Your task to perform on an android device: add a contact Image 0: 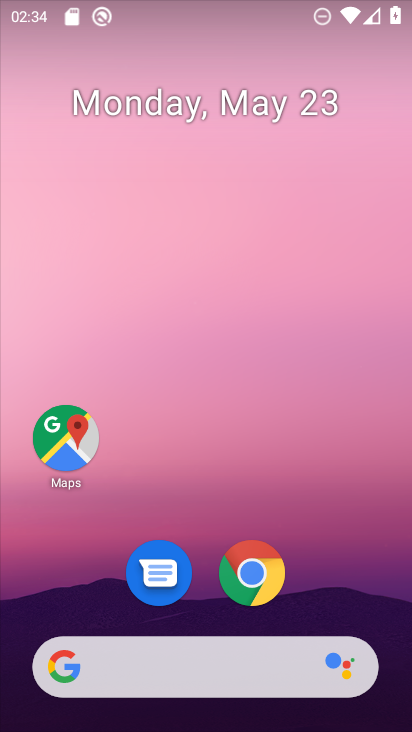
Step 0: drag from (351, 582) to (354, 91)
Your task to perform on an android device: add a contact Image 1: 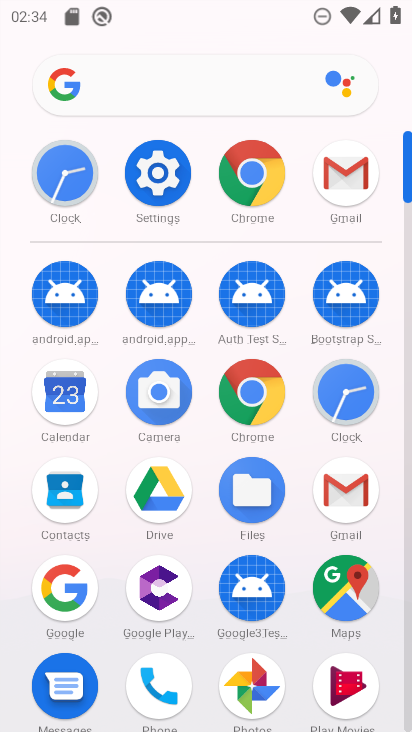
Step 1: drag from (218, 583) to (290, 219)
Your task to perform on an android device: add a contact Image 2: 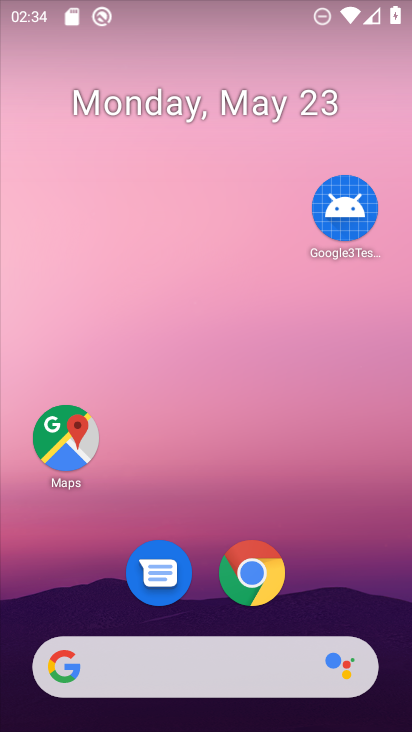
Step 2: drag from (319, 526) to (316, 56)
Your task to perform on an android device: add a contact Image 3: 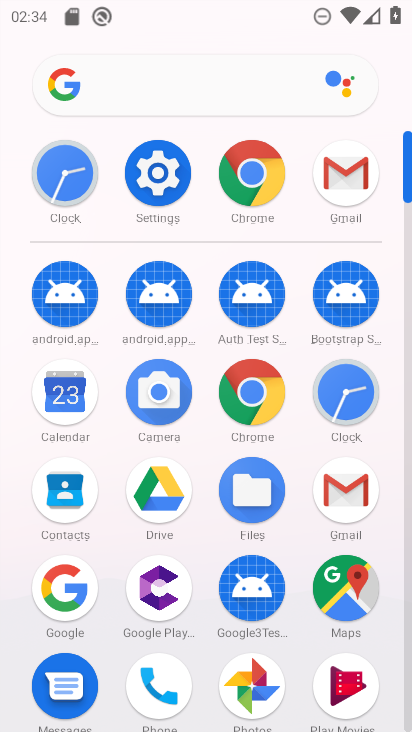
Step 3: click (64, 493)
Your task to perform on an android device: add a contact Image 4: 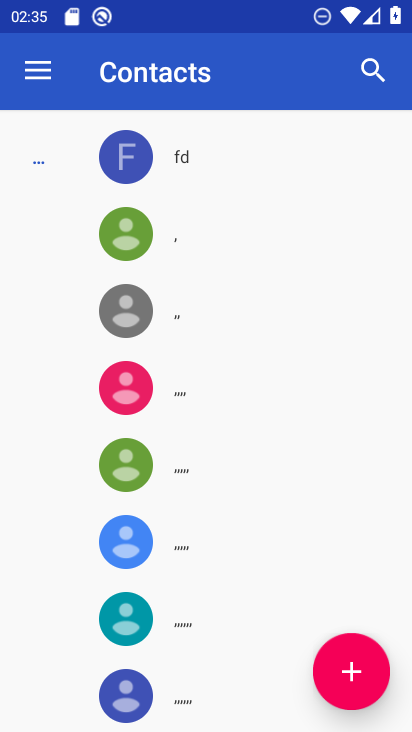
Step 4: click (361, 667)
Your task to perform on an android device: add a contact Image 5: 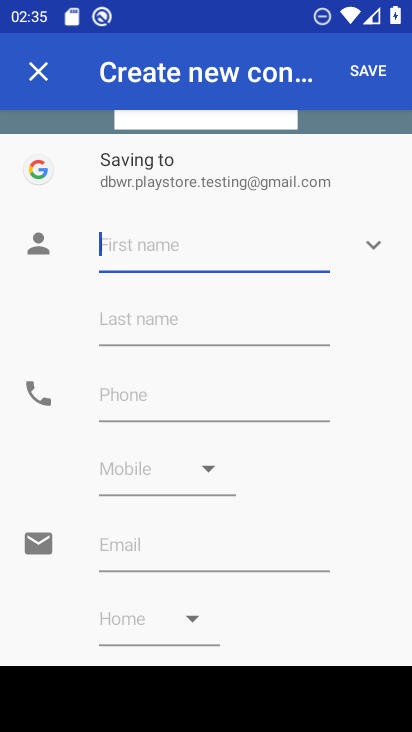
Step 5: type "hella"
Your task to perform on an android device: add a contact Image 6: 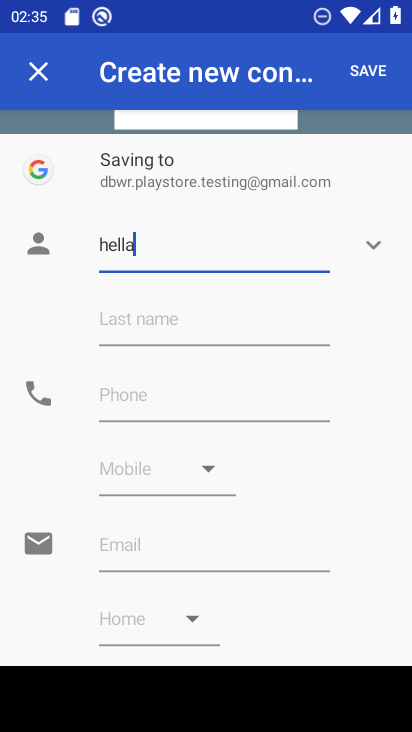
Step 6: click (377, 62)
Your task to perform on an android device: add a contact Image 7: 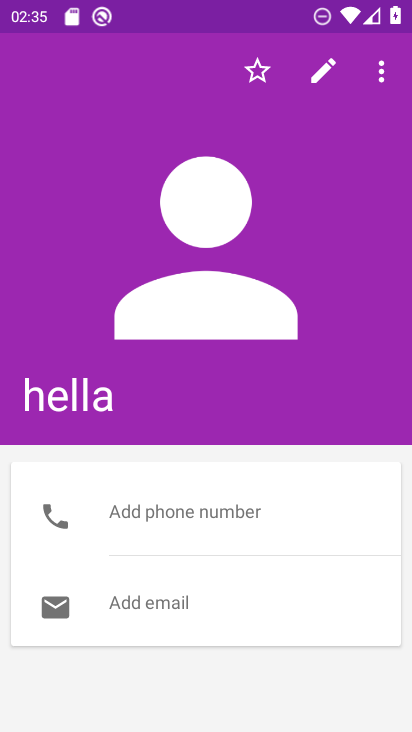
Step 7: task complete